Your task to perform on an android device: Open Google Image 0: 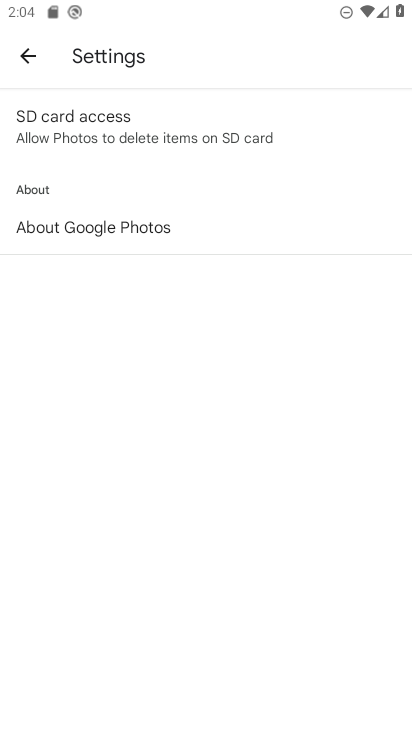
Step 0: press home button
Your task to perform on an android device: Open Google Image 1: 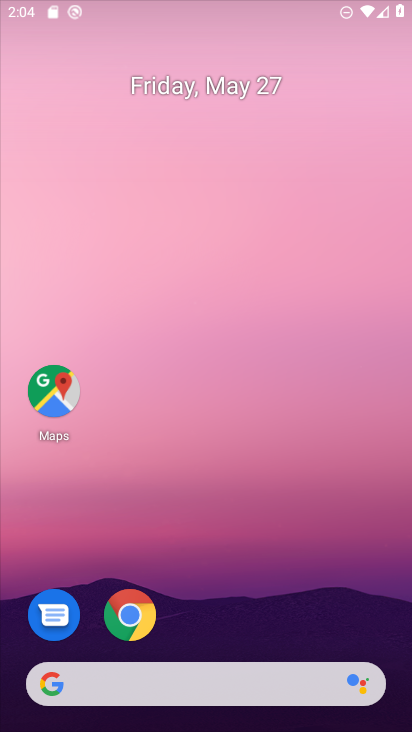
Step 1: drag from (271, 519) to (272, 66)
Your task to perform on an android device: Open Google Image 2: 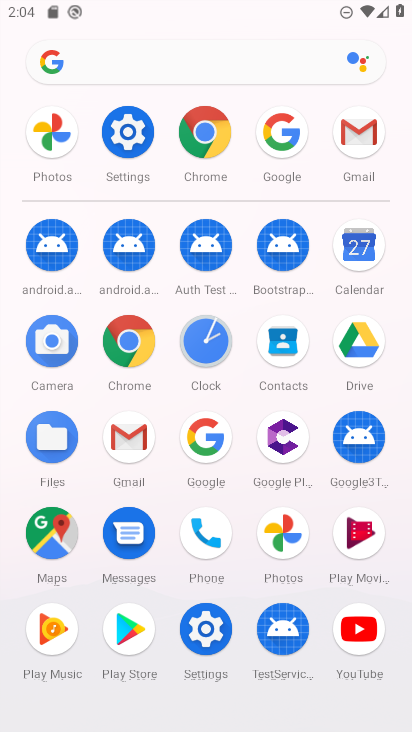
Step 2: click (197, 442)
Your task to perform on an android device: Open Google Image 3: 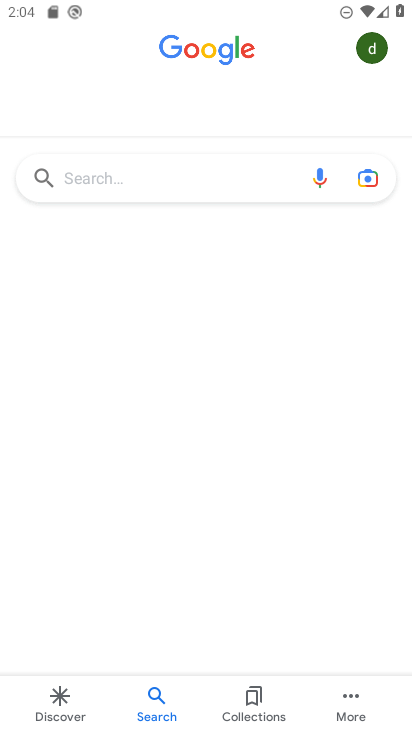
Step 3: task complete